Your task to perform on an android device: change keyboard looks Image 0: 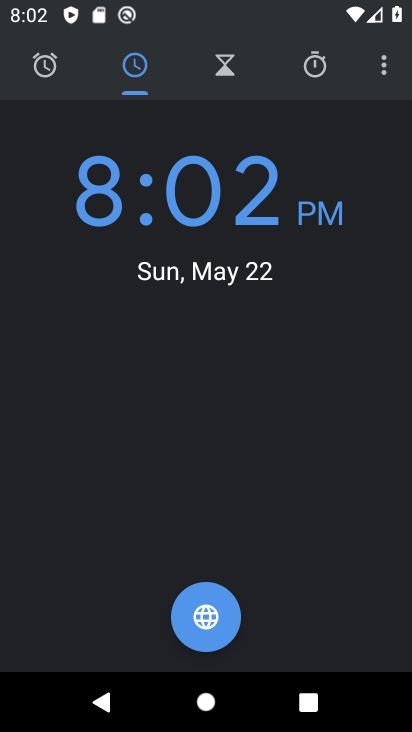
Step 0: press home button
Your task to perform on an android device: change keyboard looks Image 1: 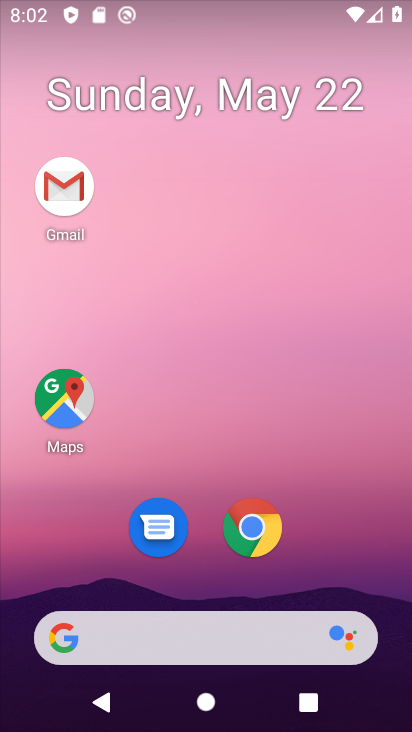
Step 1: drag from (323, 560) to (243, 124)
Your task to perform on an android device: change keyboard looks Image 2: 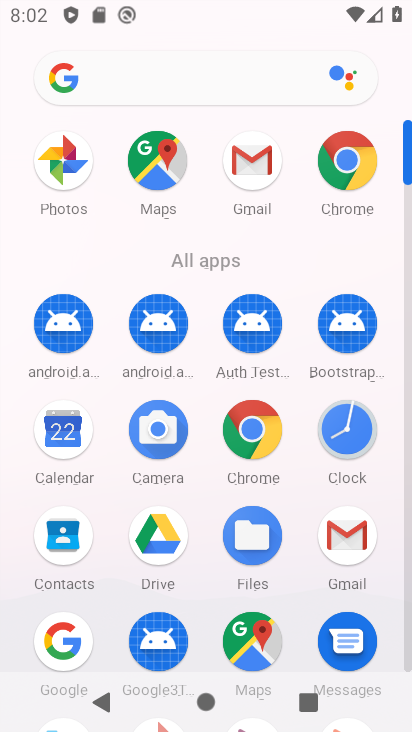
Step 2: drag from (184, 531) to (147, 160)
Your task to perform on an android device: change keyboard looks Image 3: 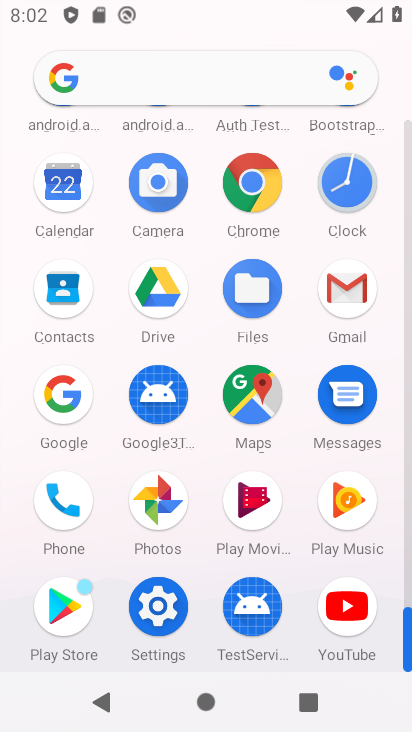
Step 3: drag from (162, 598) to (61, 393)
Your task to perform on an android device: change keyboard looks Image 4: 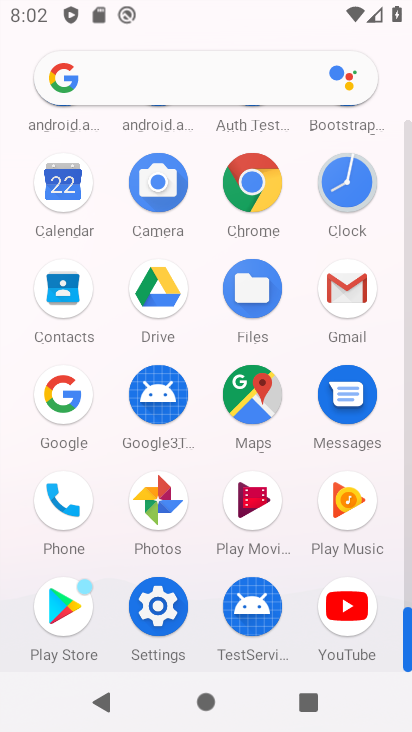
Step 4: drag from (153, 613) to (83, 325)
Your task to perform on an android device: change keyboard looks Image 5: 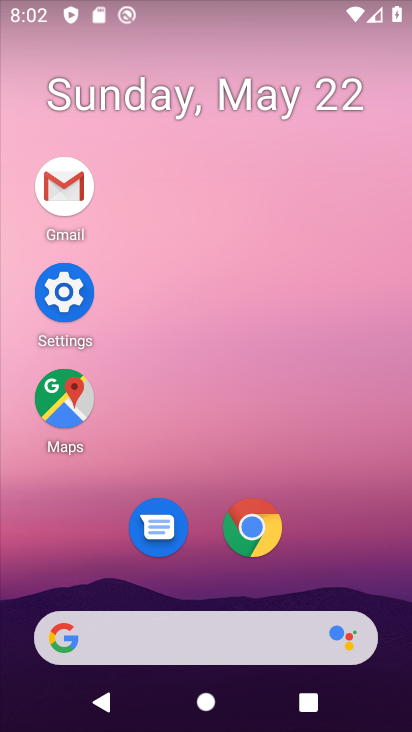
Step 5: click (75, 288)
Your task to perform on an android device: change keyboard looks Image 6: 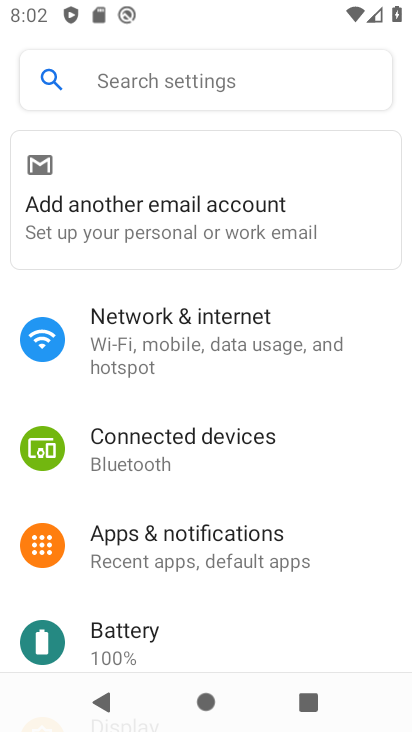
Step 6: drag from (244, 452) to (245, 100)
Your task to perform on an android device: change keyboard looks Image 7: 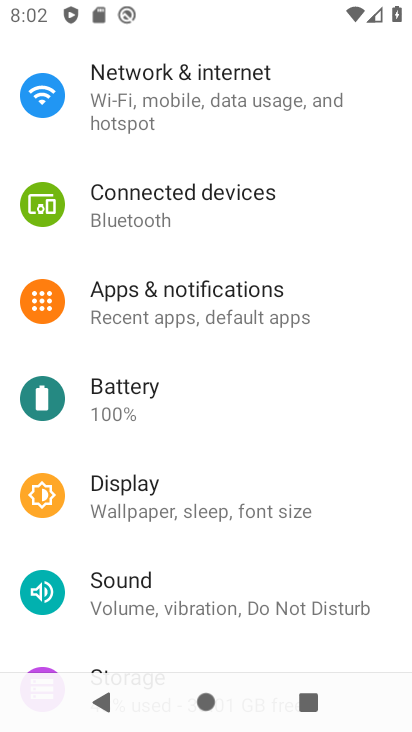
Step 7: drag from (213, 495) to (271, 93)
Your task to perform on an android device: change keyboard looks Image 8: 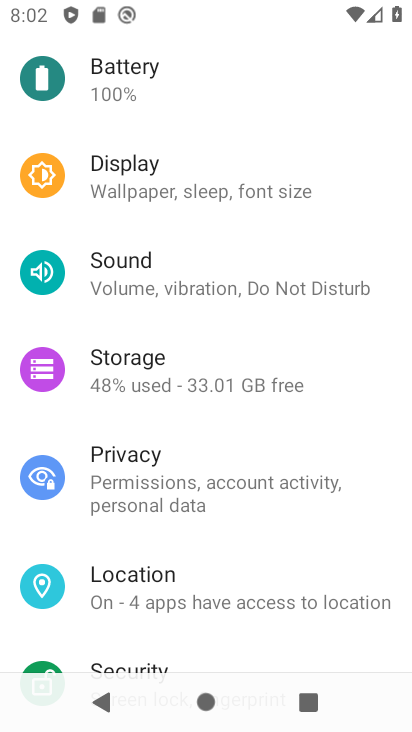
Step 8: drag from (253, 562) to (249, 54)
Your task to perform on an android device: change keyboard looks Image 9: 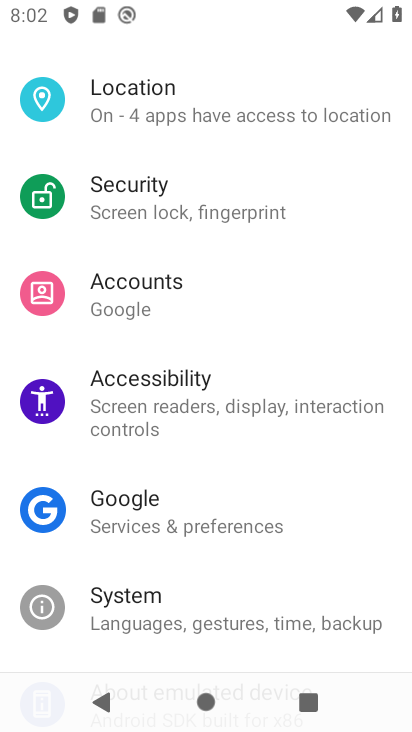
Step 9: drag from (224, 600) to (227, 246)
Your task to perform on an android device: change keyboard looks Image 10: 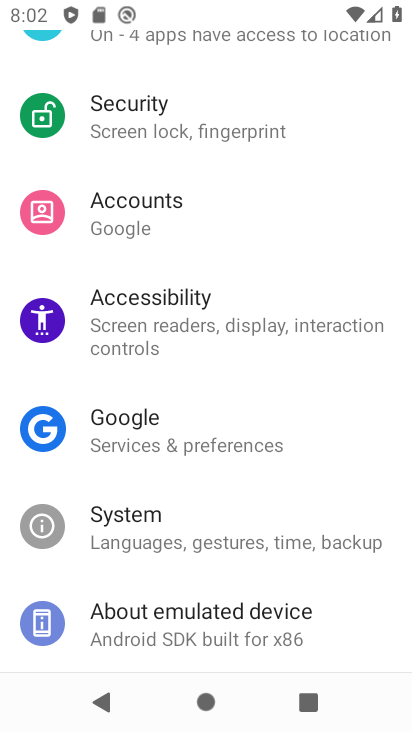
Step 10: click (187, 533)
Your task to perform on an android device: change keyboard looks Image 11: 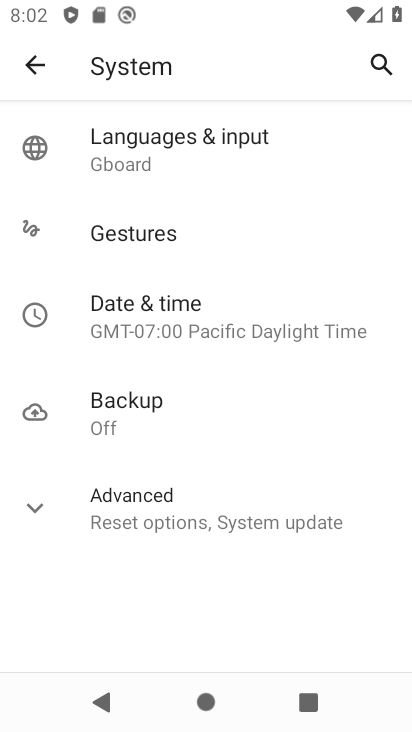
Step 11: click (160, 172)
Your task to perform on an android device: change keyboard looks Image 12: 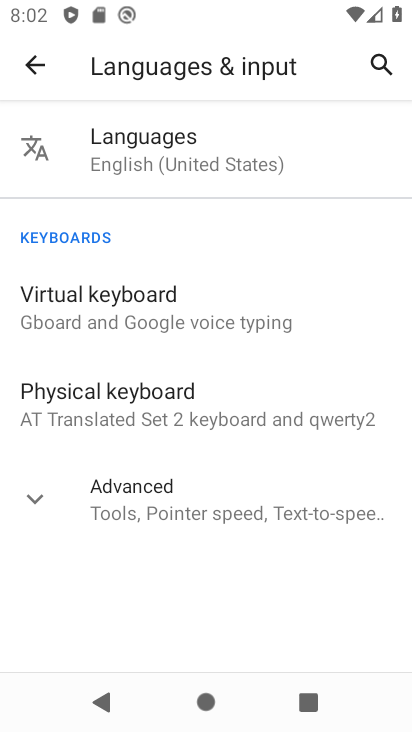
Step 12: click (211, 292)
Your task to perform on an android device: change keyboard looks Image 13: 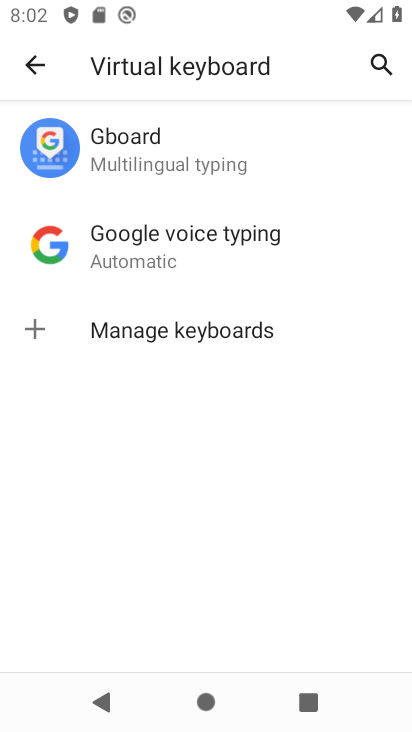
Step 13: click (169, 155)
Your task to perform on an android device: change keyboard looks Image 14: 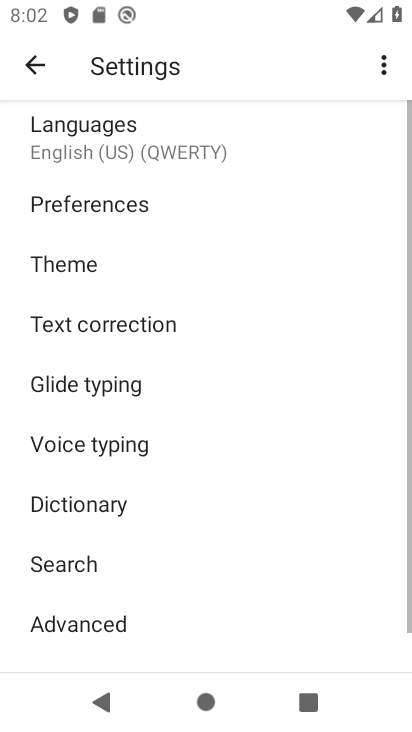
Step 14: click (127, 263)
Your task to perform on an android device: change keyboard looks Image 15: 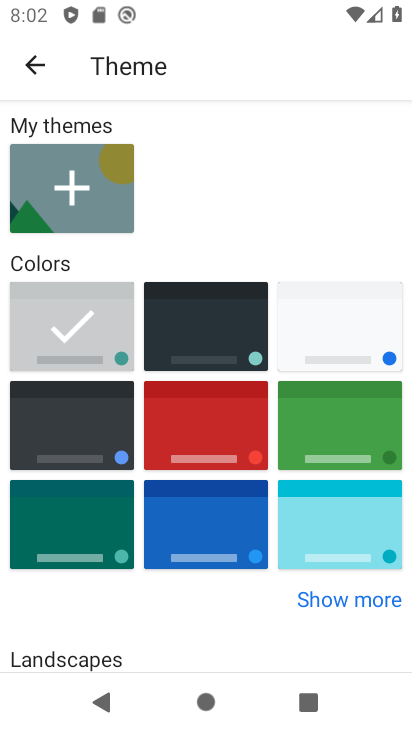
Step 15: click (248, 359)
Your task to perform on an android device: change keyboard looks Image 16: 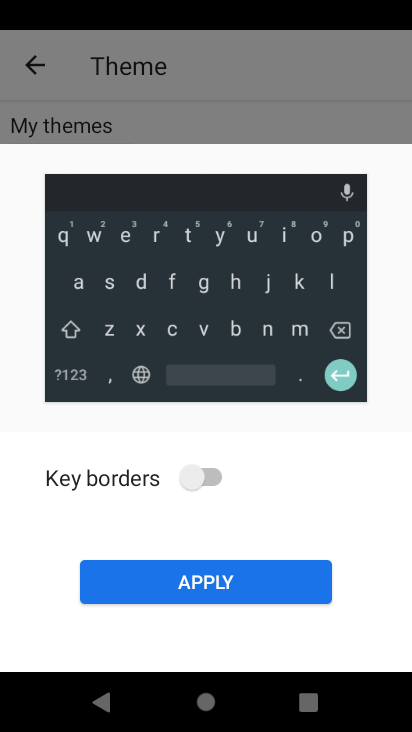
Step 16: click (216, 478)
Your task to perform on an android device: change keyboard looks Image 17: 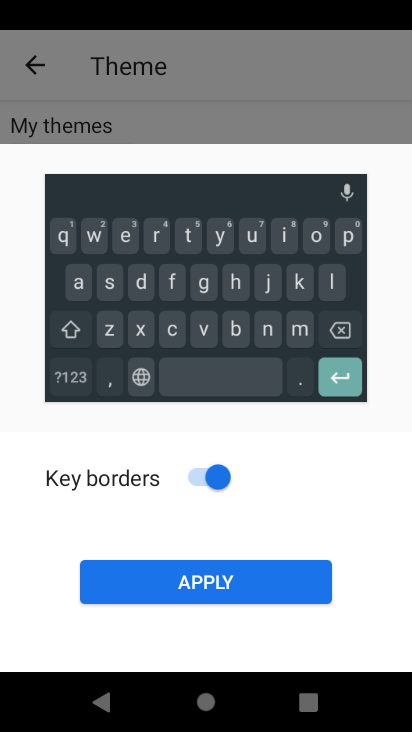
Step 17: click (264, 593)
Your task to perform on an android device: change keyboard looks Image 18: 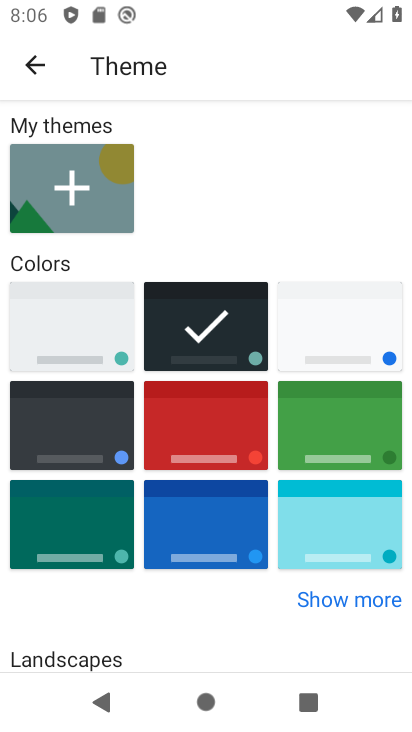
Step 18: task complete